Your task to perform on an android device: toggle data saver in the chrome app Image 0: 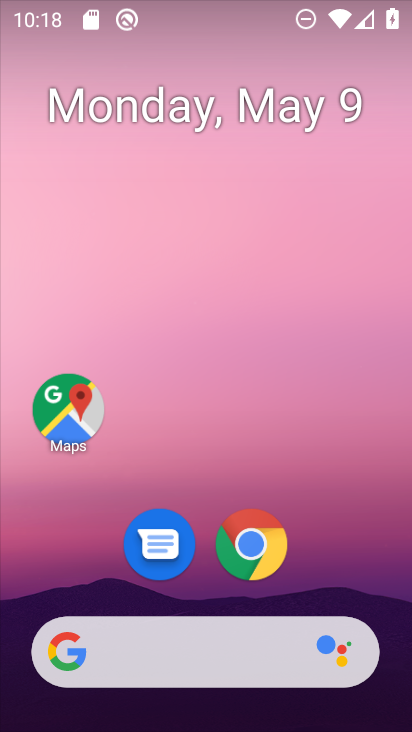
Step 0: click (257, 548)
Your task to perform on an android device: toggle data saver in the chrome app Image 1: 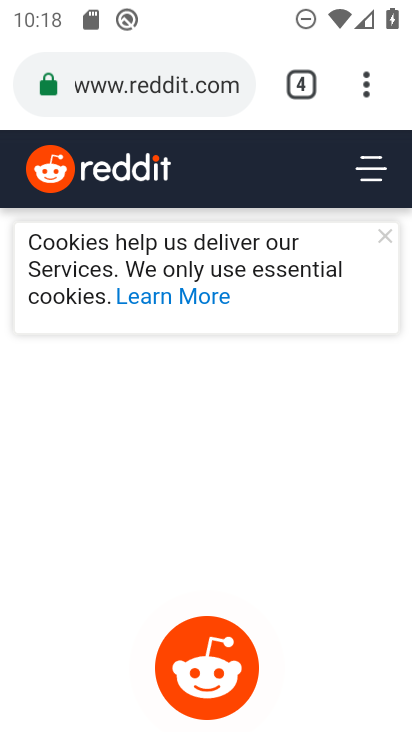
Step 1: click (363, 88)
Your task to perform on an android device: toggle data saver in the chrome app Image 2: 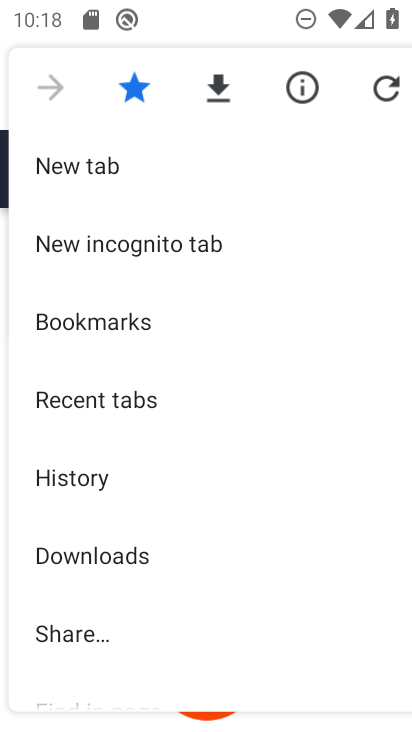
Step 2: drag from (150, 473) to (62, 214)
Your task to perform on an android device: toggle data saver in the chrome app Image 3: 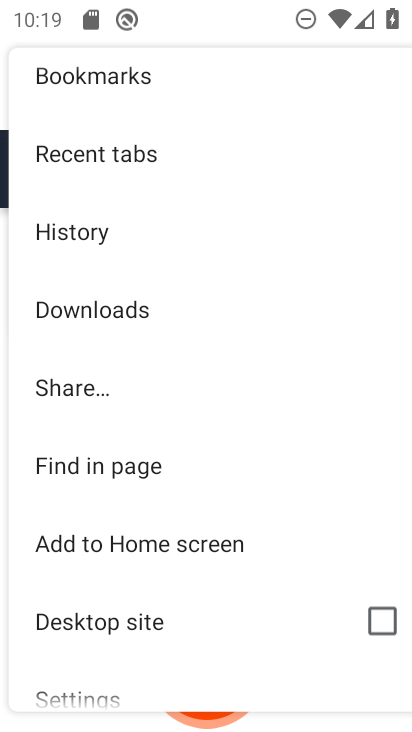
Step 3: drag from (255, 583) to (227, 285)
Your task to perform on an android device: toggle data saver in the chrome app Image 4: 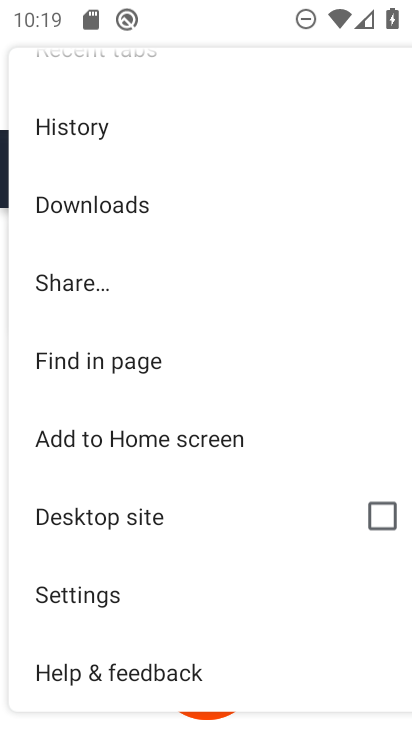
Step 4: click (85, 592)
Your task to perform on an android device: toggle data saver in the chrome app Image 5: 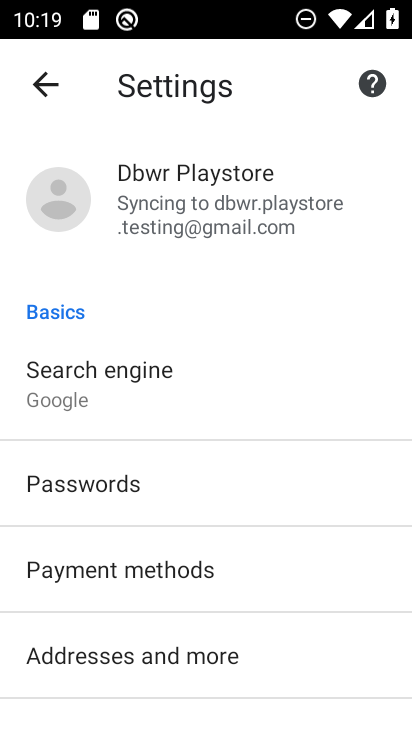
Step 5: drag from (252, 556) to (215, 318)
Your task to perform on an android device: toggle data saver in the chrome app Image 6: 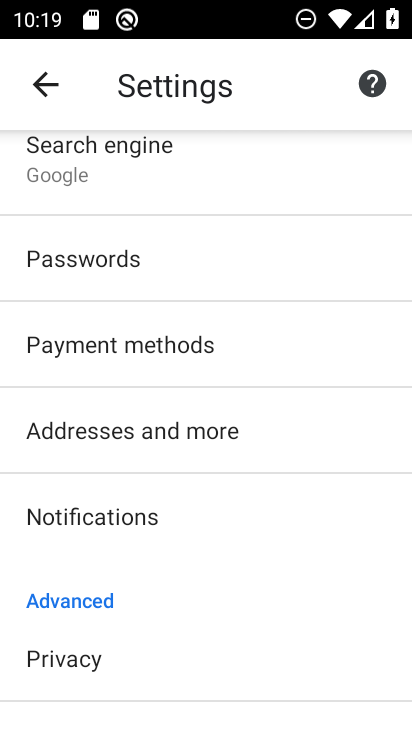
Step 6: drag from (207, 553) to (157, 131)
Your task to perform on an android device: toggle data saver in the chrome app Image 7: 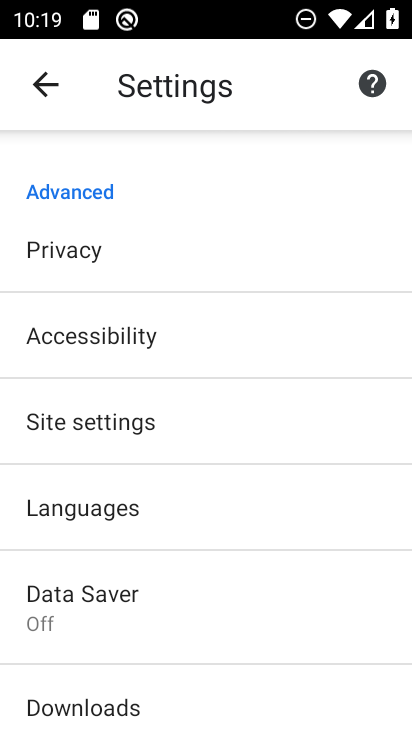
Step 7: click (92, 588)
Your task to perform on an android device: toggle data saver in the chrome app Image 8: 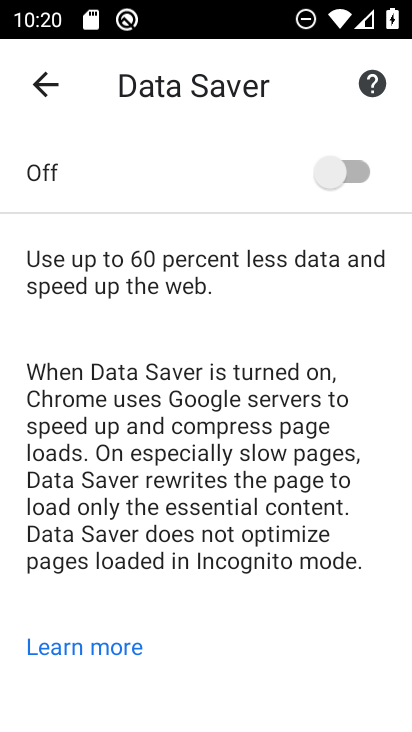
Step 8: click (336, 175)
Your task to perform on an android device: toggle data saver in the chrome app Image 9: 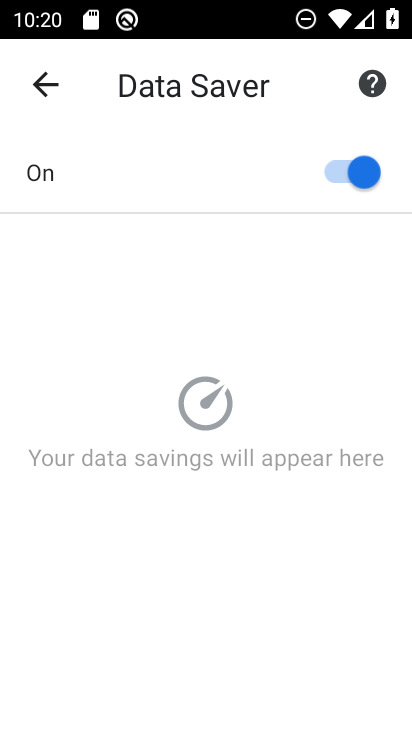
Step 9: task complete